Your task to perform on an android device: Show me popular games on the Play Store Image 0: 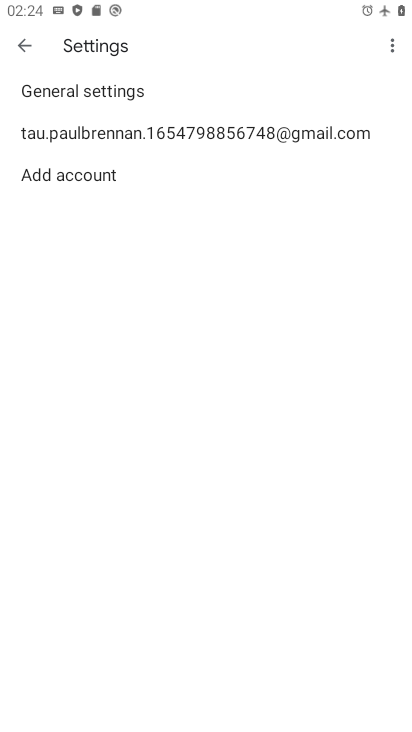
Step 0: press home button
Your task to perform on an android device: Show me popular games on the Play Store Image 1: 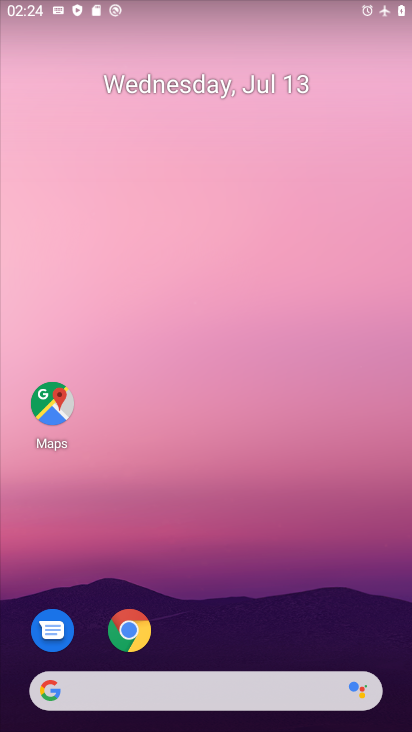
Step 1: drag from (222, 627) to (180, 266)
Your task to perform on an android device: Show me popular games on the Play Store Image 2: 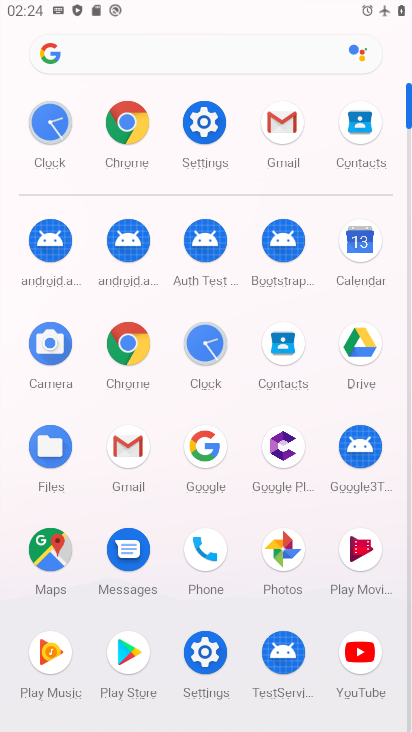
Step 2: click (116, 652)
Your task to perform on an android device: Show me popular games on the Play Store Image 3: 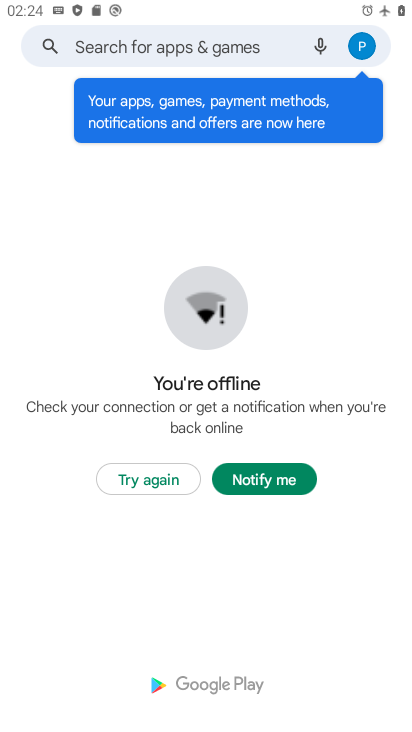
Step 3: task complete